Your task to perform on an android device: change timer sound Image 0: 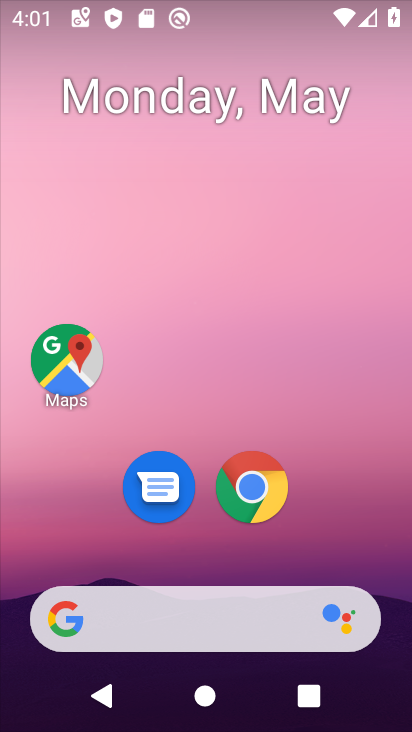
Step 0: drag from (191, 556) to (226, 88)
Your task to perform on an android device: change timer sound Image 1: 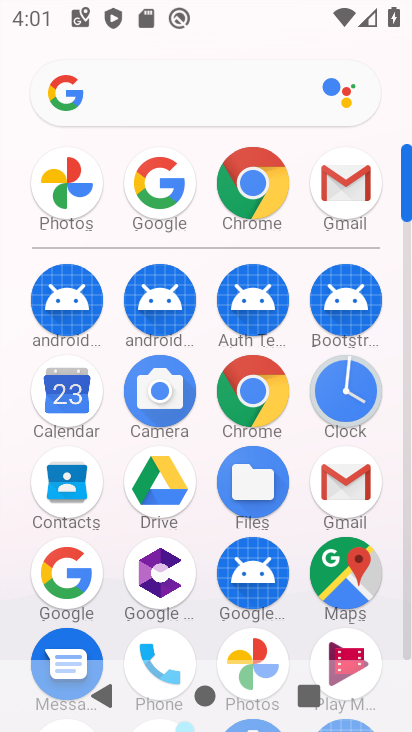
Step 1: click (351, 389)
Your task to perform on an android device: change timer sound Image 2: 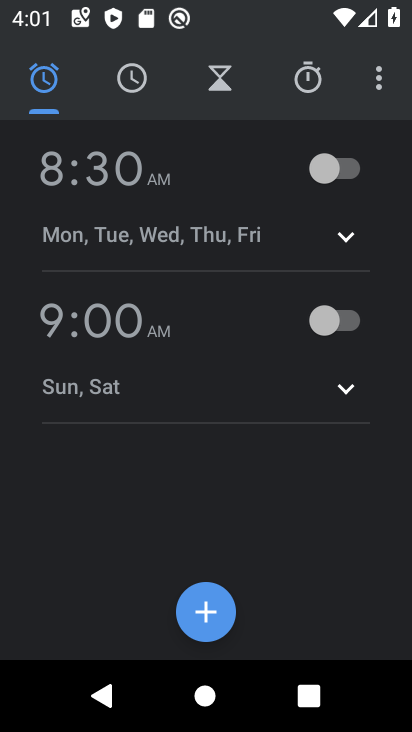
Step 2: click (383, 81)
Your task to perform on an android device: change timer sound Image 3: 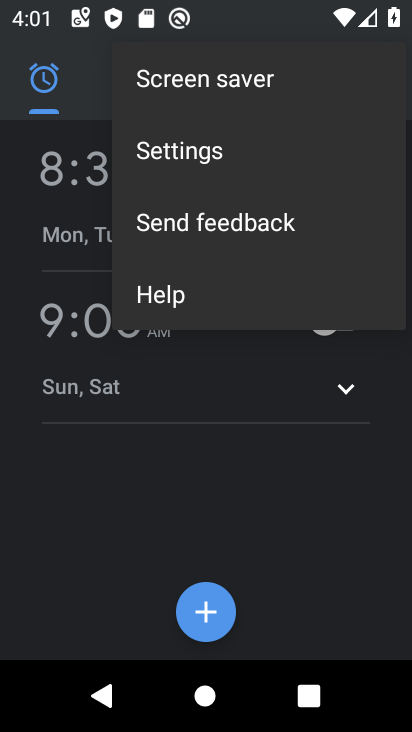
Step 3: click (204, 153)
Your task to perform on an android device: change timer sound Image 4: 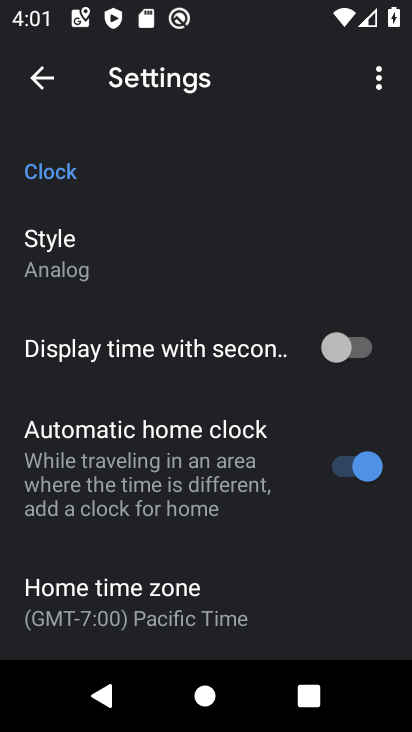
Step 4: drag from (154, 556) to (191, 173)
Your task to perform on an android device: change timer sound Image 5: 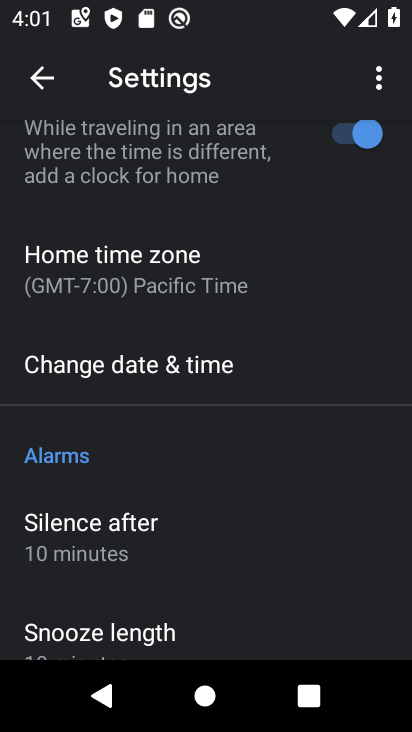
Step 5: drag from (108, 596) to (157, 287)
Your task to perform on an android device: change timer sound Image 6: 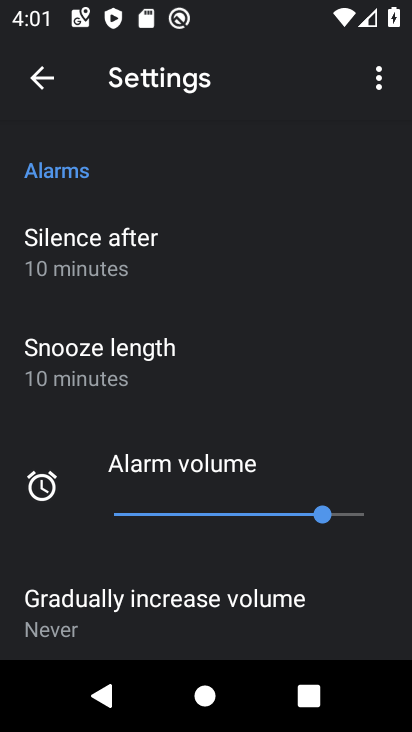
Step 6: drag from (199, 206) to (128, 600)
Your task to perform on an android device: change timer sound Image 7: 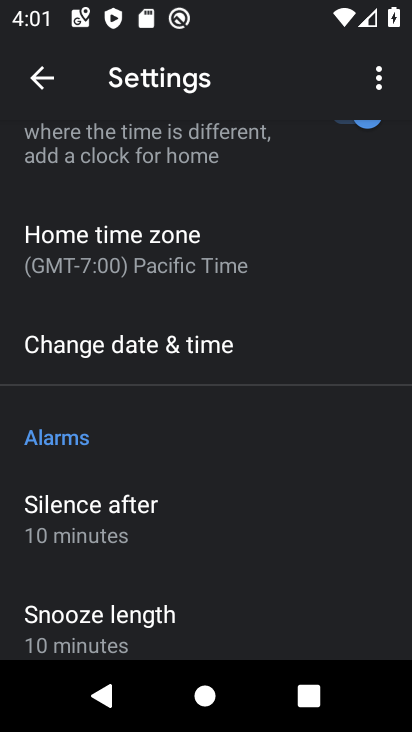
Step 7: drag from (133, 583) to (175, 200)
Your task to perform on an android device: change timer sound Image 8: 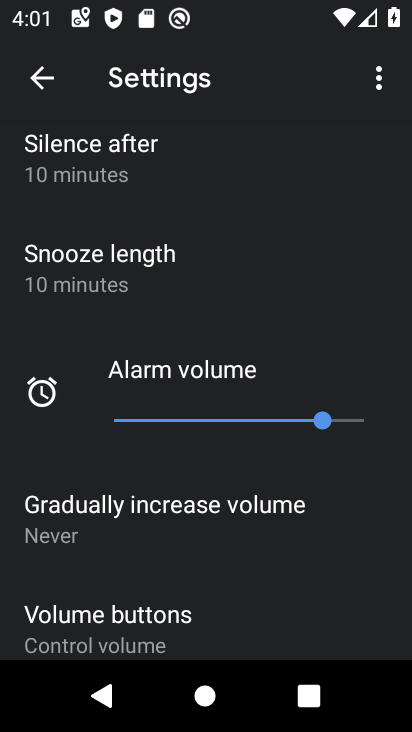
Step 8: drag from (125, 630) to (160, 245)
Your task to perform on an android device: change timer sound Image 9: 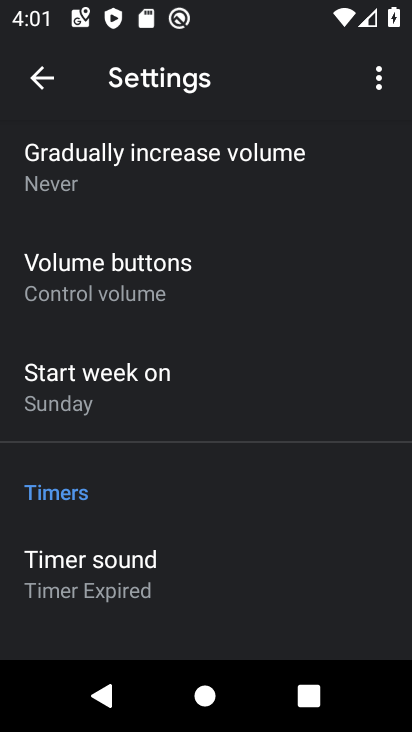
Step 9: click (100, 582)
Your task to perform on an android device: change timer sound Image 10: 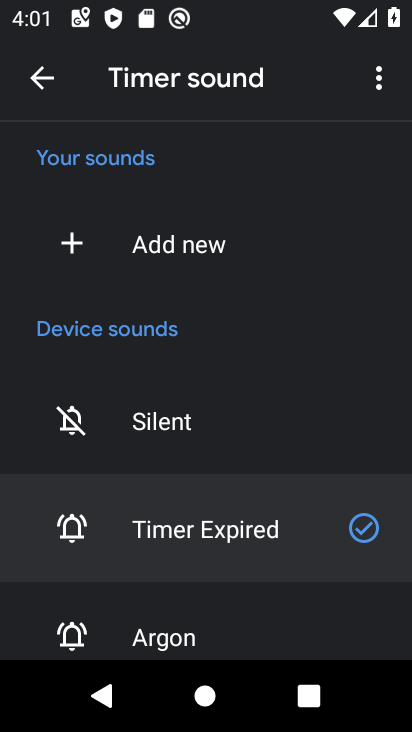
Step 10: click (160, 637)
Your task to perform on an android device: change timer sound Image 11: 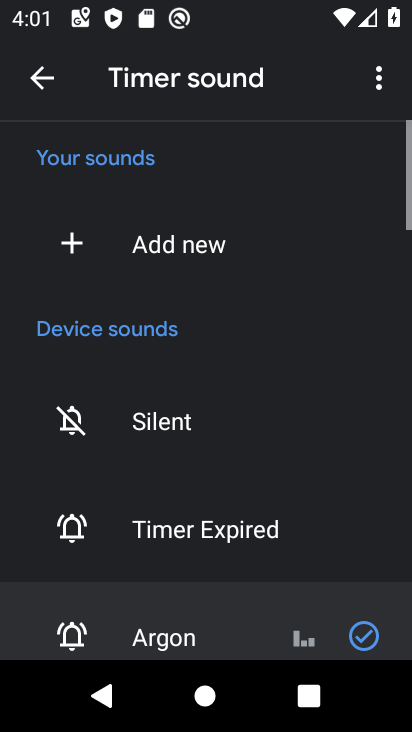
Step 11: task complete